Your task to perform on an android device: See recent photos Image 0: 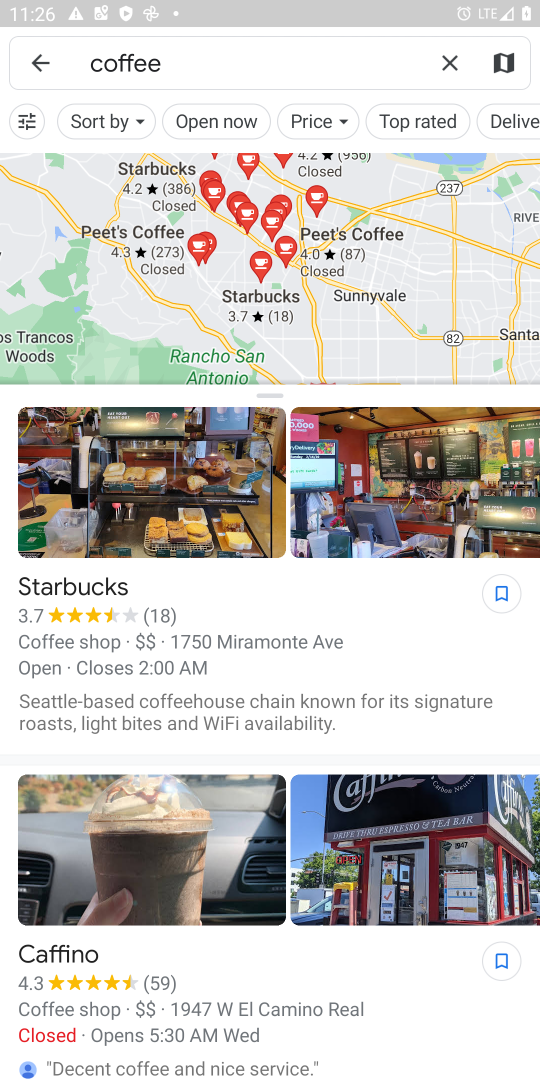
Step 0: press home button
Your task to perform on an android device: See recent photos Image 1: 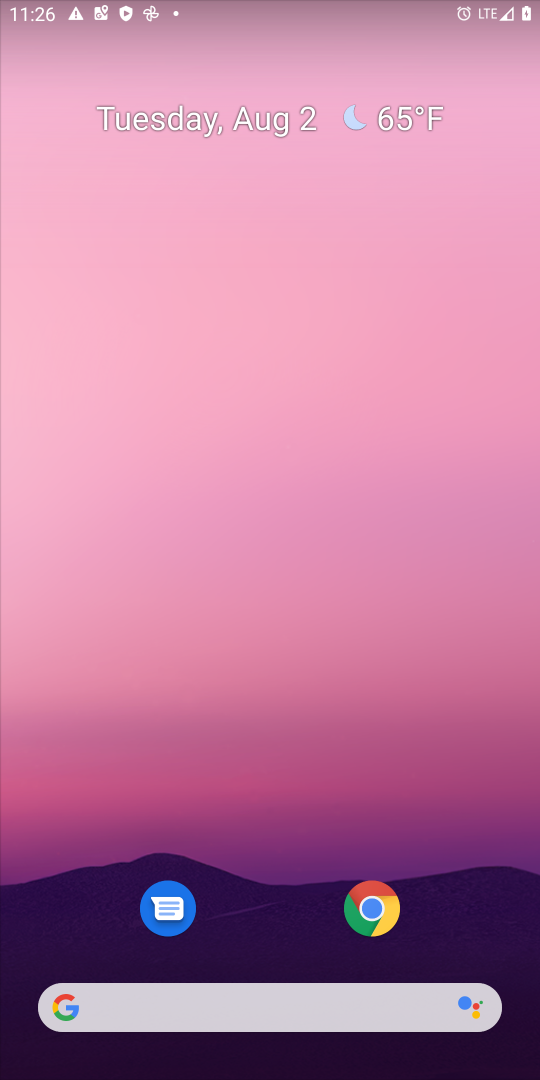
Step 1: drag from (334, 677) to (355, 266)
Your task to perform on an android device: See recent photos Image 2: 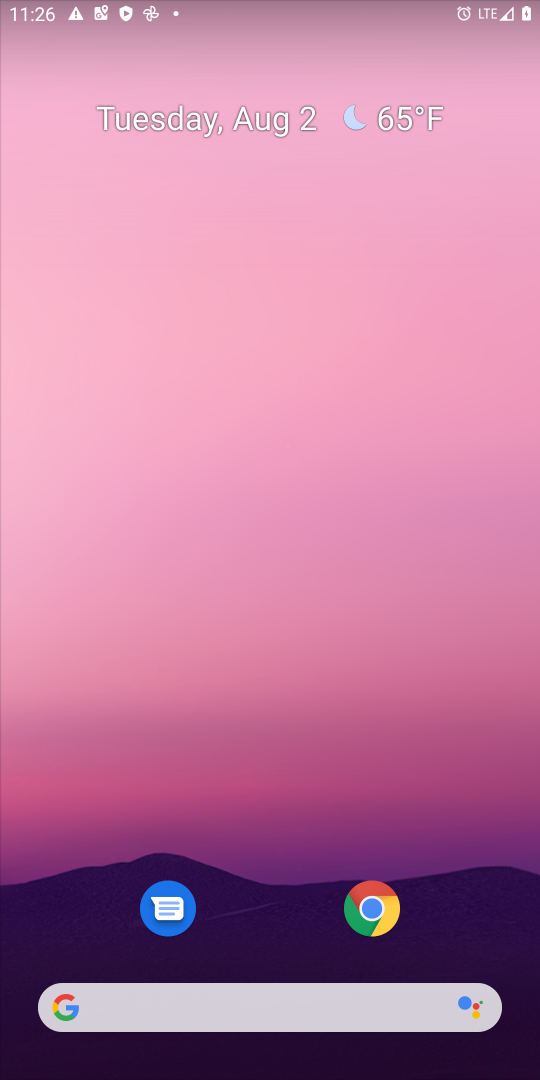
Step 2: drag from (298, 817) to (511, 511)
Your task to perform on an android device: See recent photos Image 3: 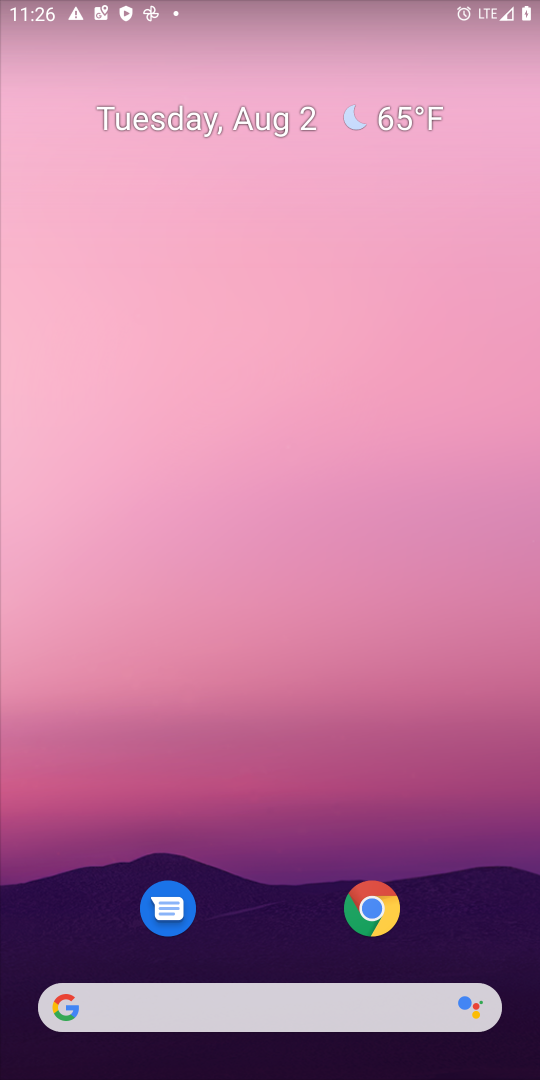
Step 3: drag from (252, 812) to (312, 106)
Your task to perform on an android device: See recent photos Image 4: 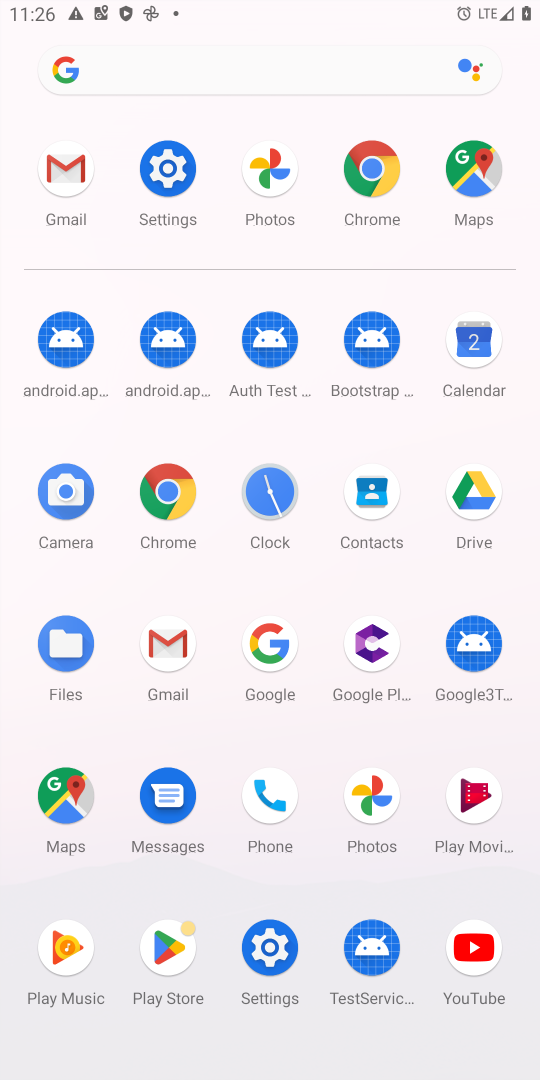
Step 4: click (372, 816)
Your task to perform on an android device: See recent photos Image 5: 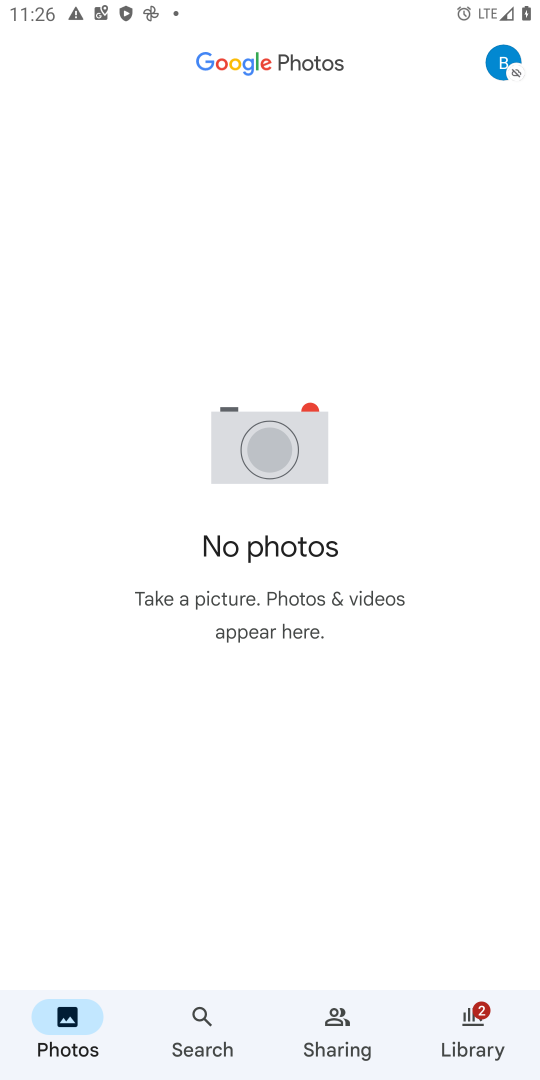
Step 5: click (483, 1030)
Your task to perform on an android device: See recent photos Image 6: 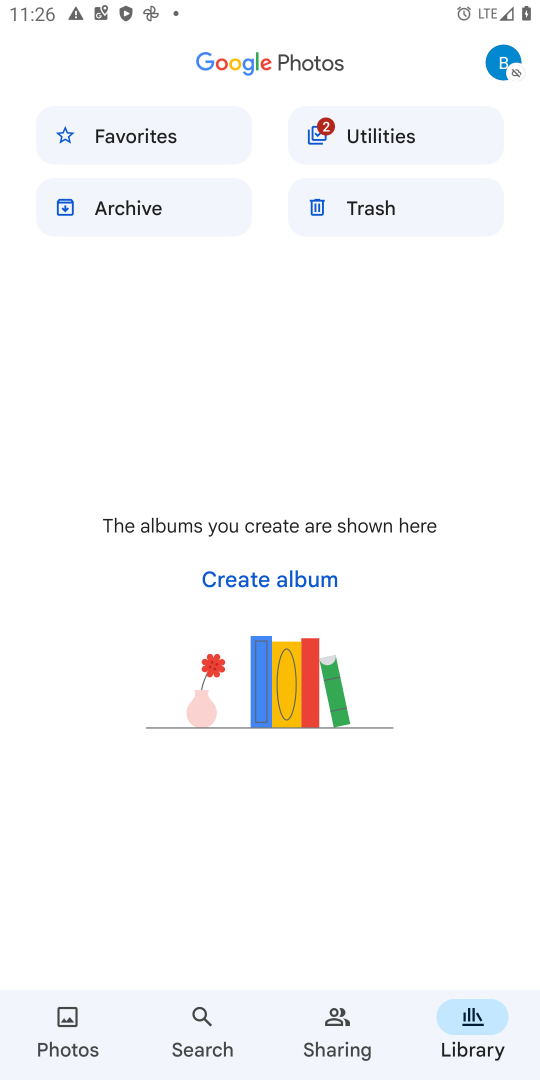
Step 6: click (62, 1019)
Your task to perform on an android device: See recent photos Image 7: 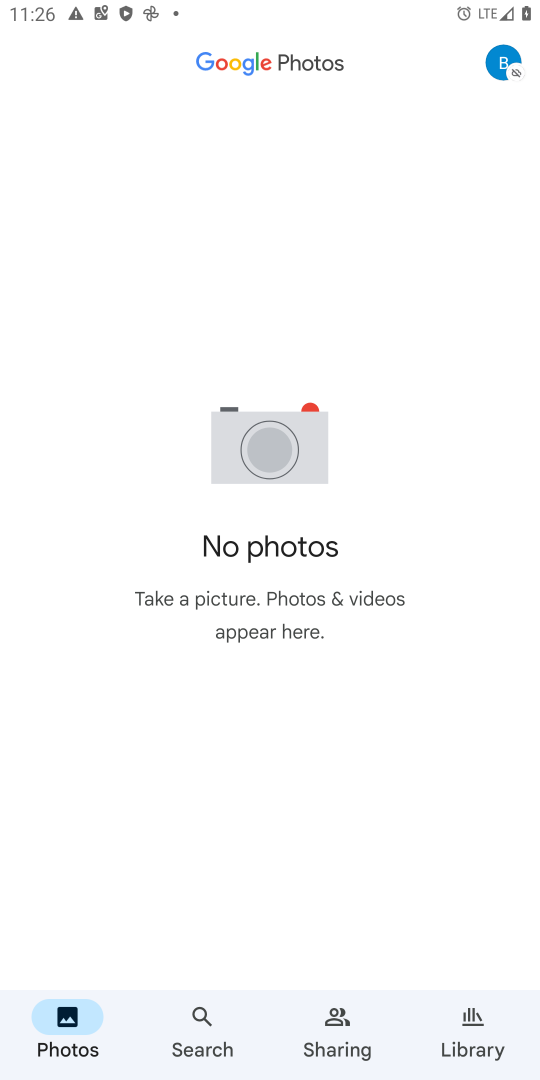
Step 7: click (179, 1049)
Your task to perform on an android device: See recent photos Image 8: 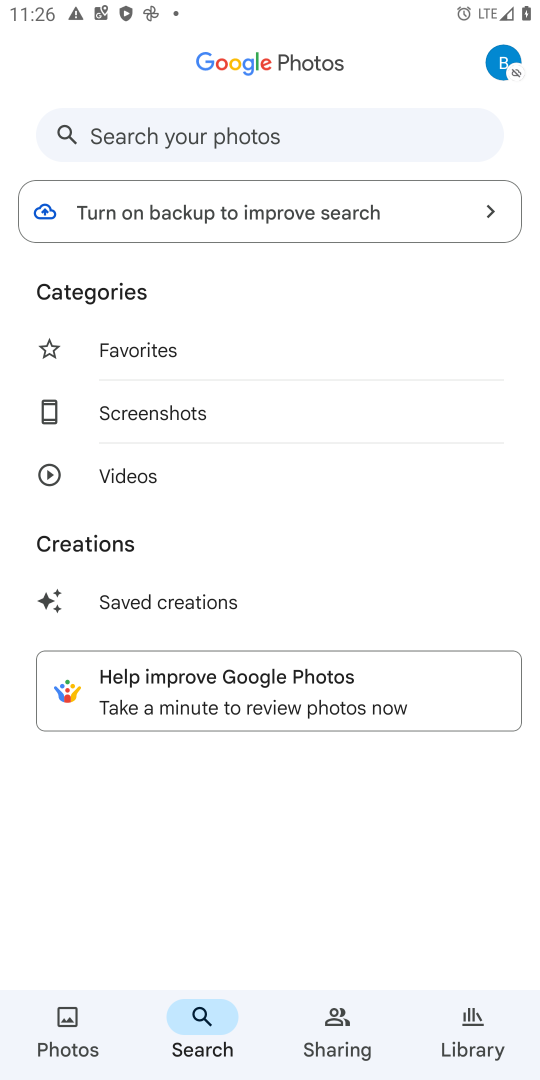
Step 8: task complete